Your task to perform on an android device: turn off picture-in-picture Image 0: 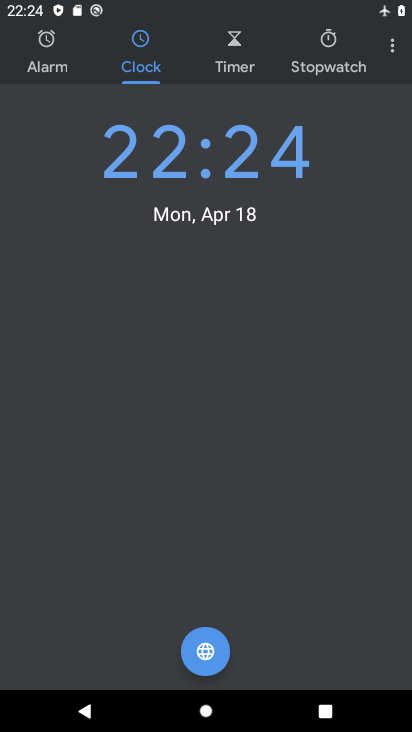
Step 0: press back button
Your task to perform on an android device: turn off picture-in-picture Image 1: 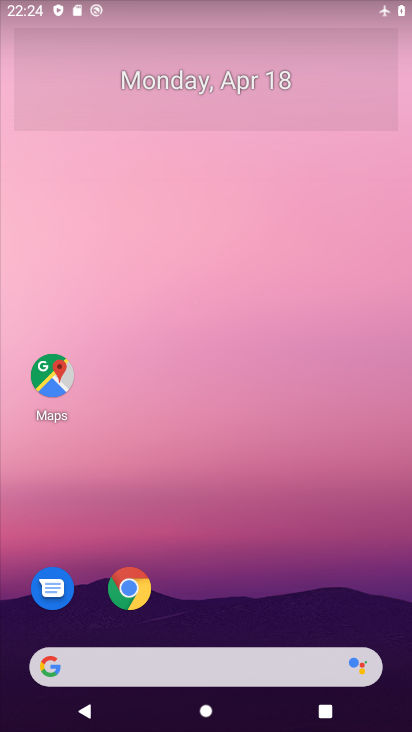
Step 1: click (123, 581)
Your task to perform on an android device: turn off picture-in-picture Image 2: 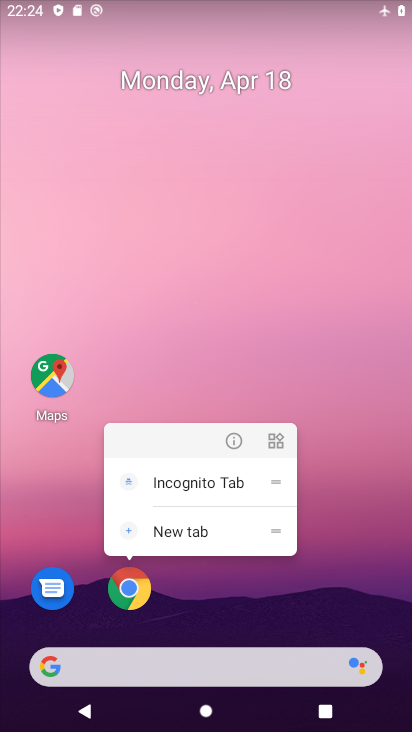
Step 2: click (237, 444)
Your task to perform on an android device: turn off picture-in-picture Image 3: 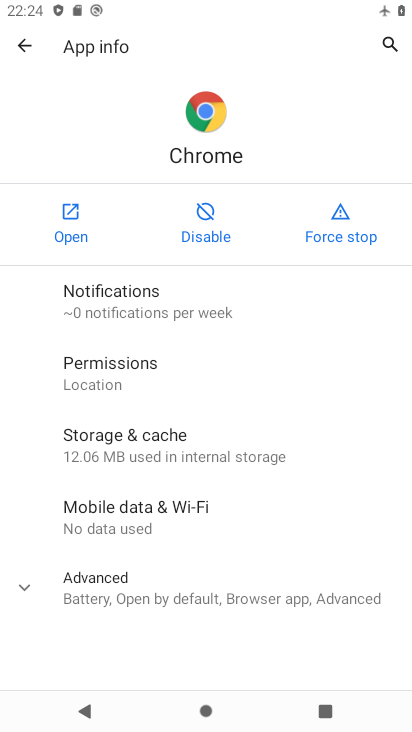
Step 3: click (90, 589)
Your task to perform on an android device: turn off picture-in-picture Image 4: 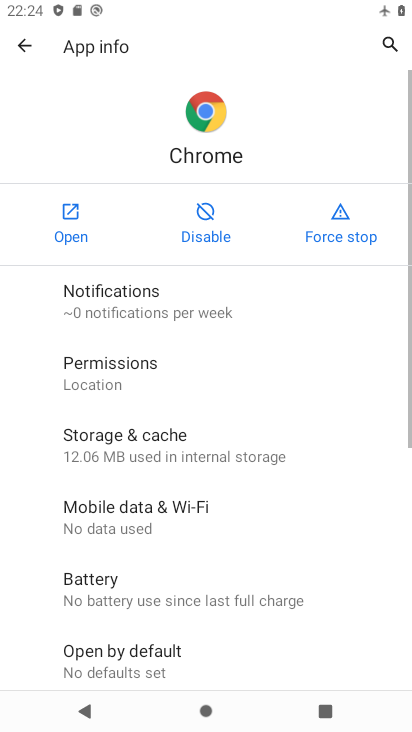
Step 4: drag from (105, 652) to (110, 483)
Your task to perform on an android device: turn off picture-in-picture Image 5: 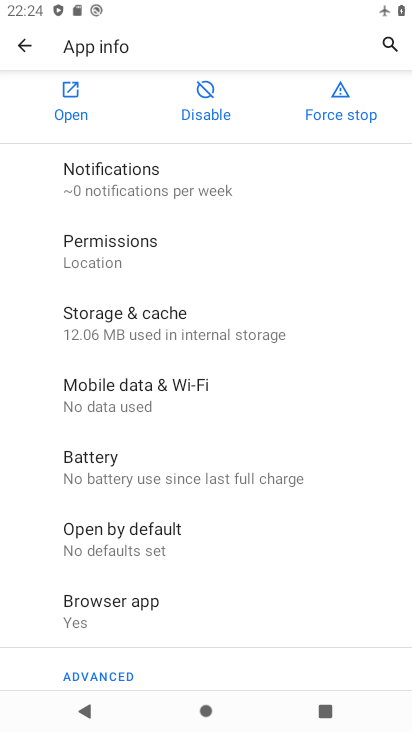
Step 5: drag from (142, 603) to (172, 406)
Your task to perform on an android device: turn off picture-in-picture Image 6: 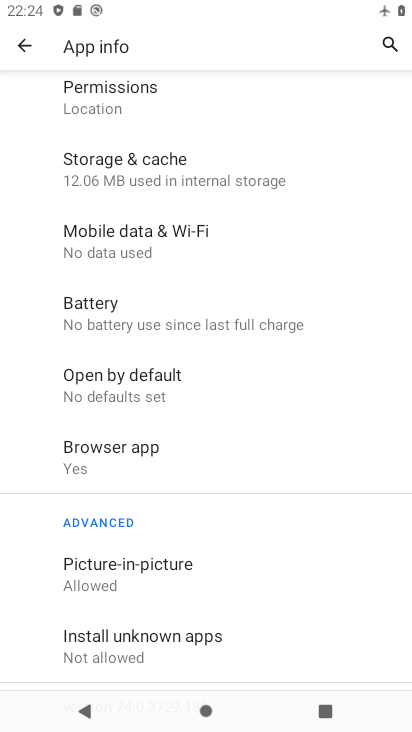
Step 6: click (154, 557)
Your task to perform on an android device: turn off picture-in-picture Image 7: 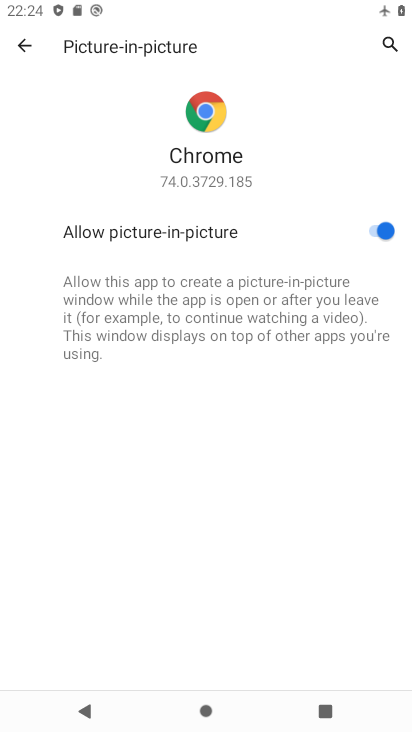
Step 7: click (375, 223)
Your task to perform on an android device: turn off picture-in-picture Image 8: 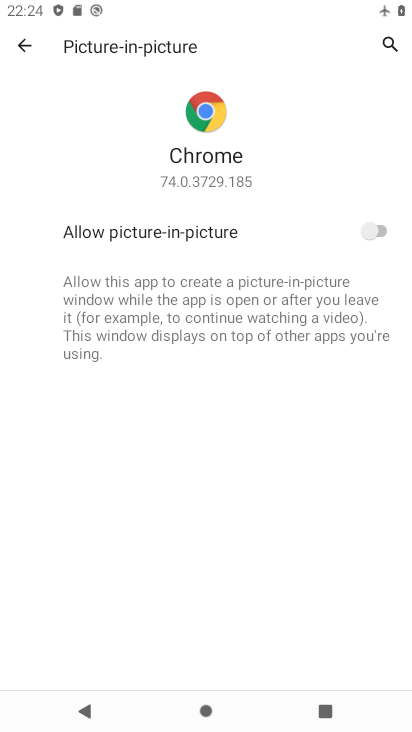
Step 8: task complete